Your task to perform on an android device: uninstall "Adobe Acrobat Reader" Image 0: 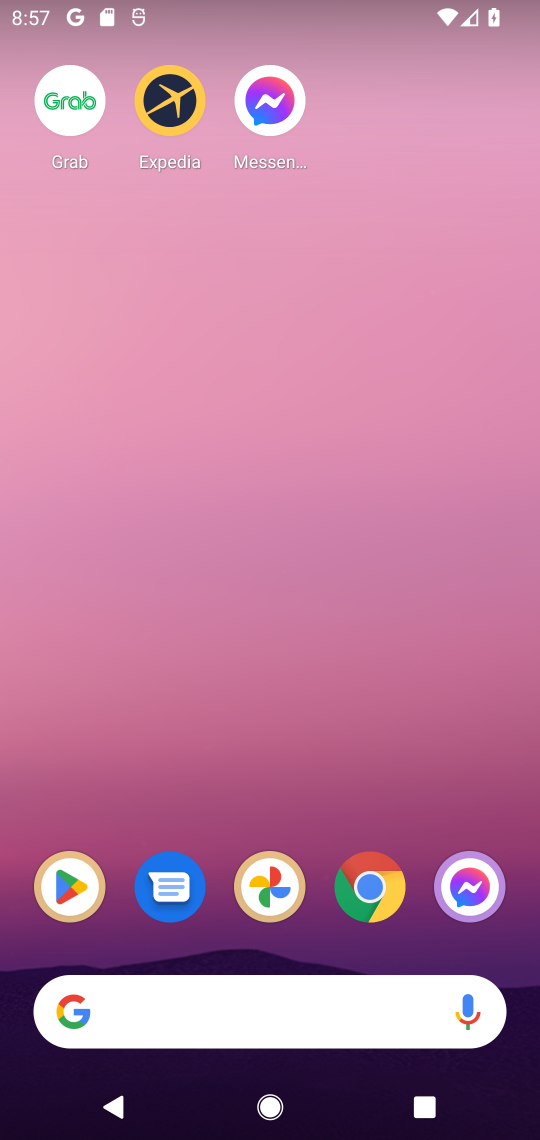
Step 0: click (74, 898)
Your task to perform on an android device: uninstall "Adobe Acrobat Reader" Image 1: 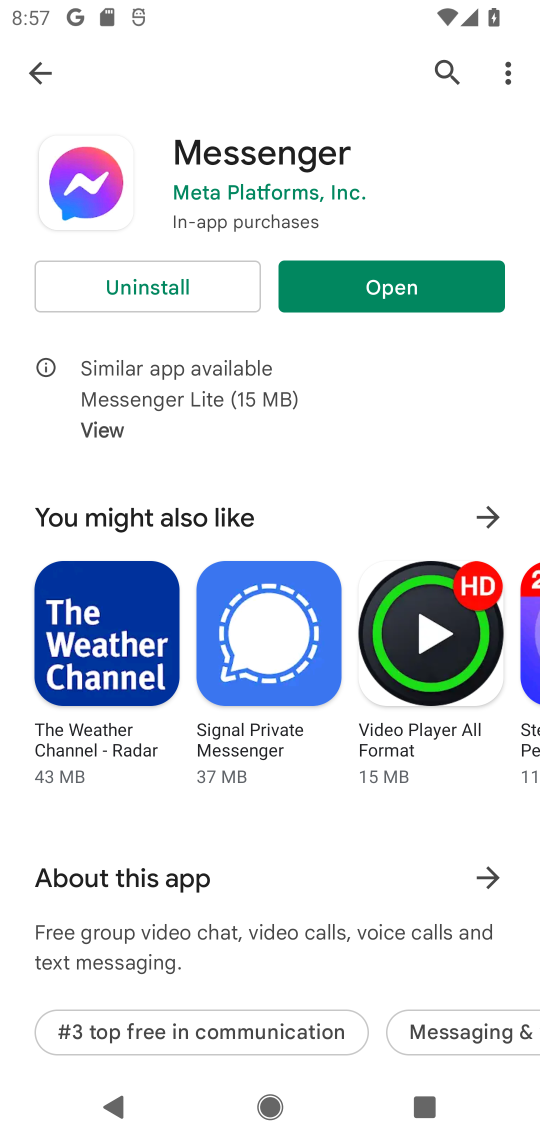
Step 1: click (447, 66)
Your task to perform on an android device: uninstall "Adobe Acrobat Reader" Image 2: 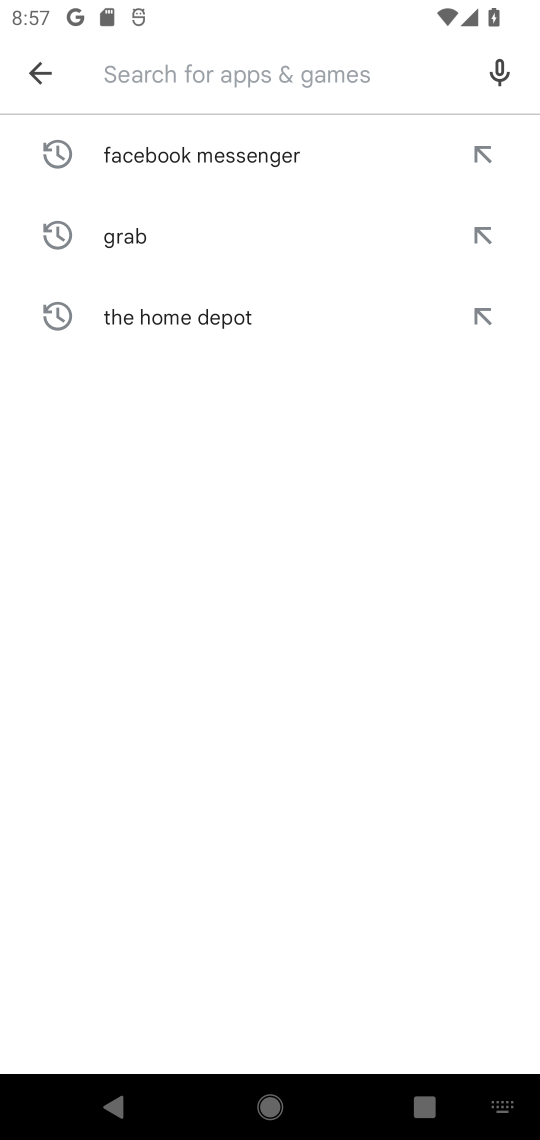
Step 2: type "Adobe acrobat reader"
Your task to perform on an android device: uninstall "Adobe Acrobat Reader" Image 3: 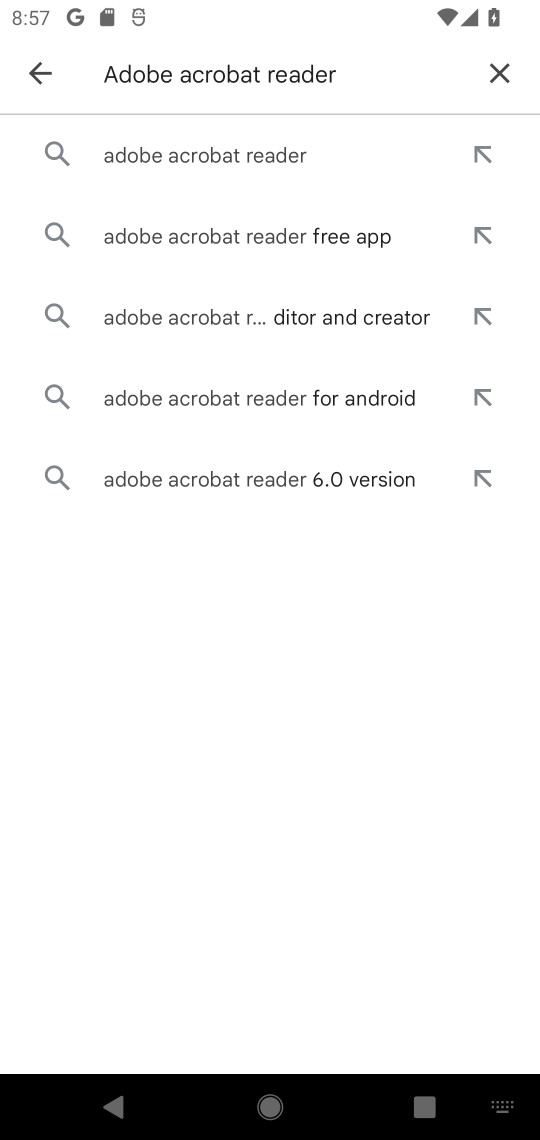
Step 3: click (268, 147)
Your task to perform on an android device: uninstall "Adobe Acrobat Reader" Image 4: 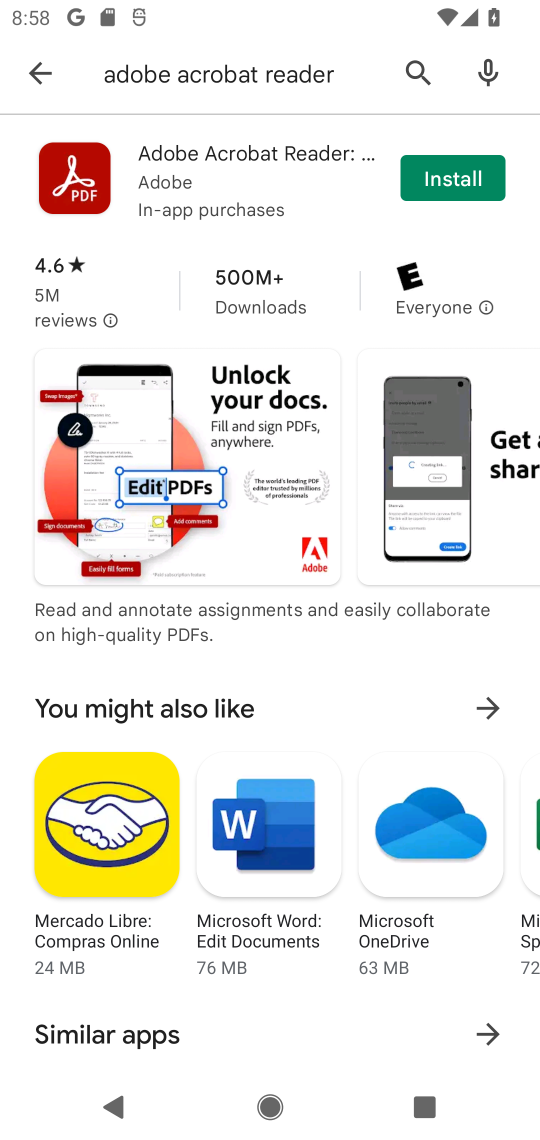
Step 4: click (206, 147)
Your task to perform on an android device: uninstall "Adobe Acrobat Reader" Image 5: 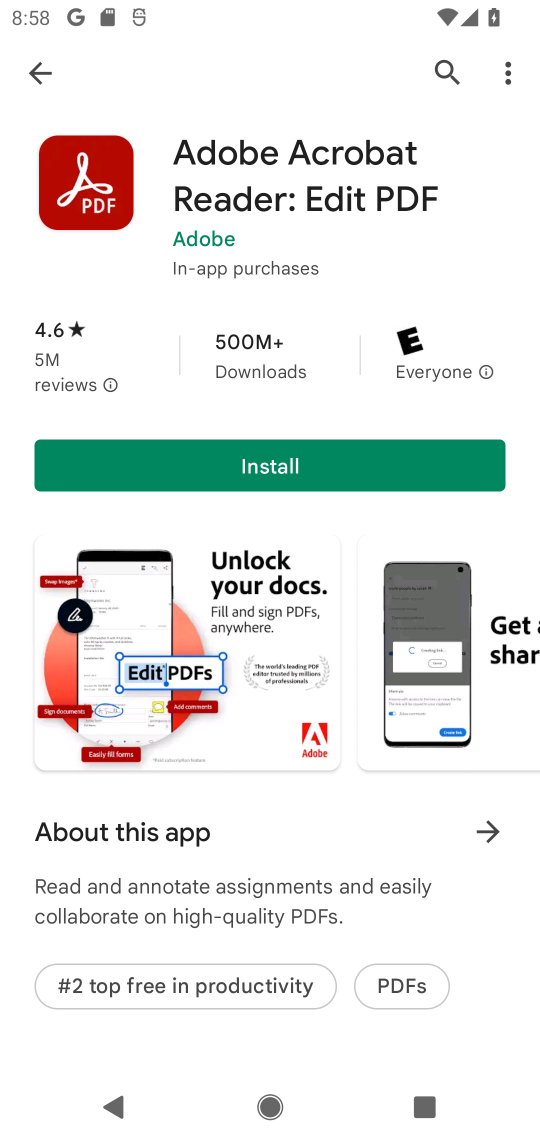
Step 5: task complete